Your task to perform on an android device: change notifications settings Image 0: 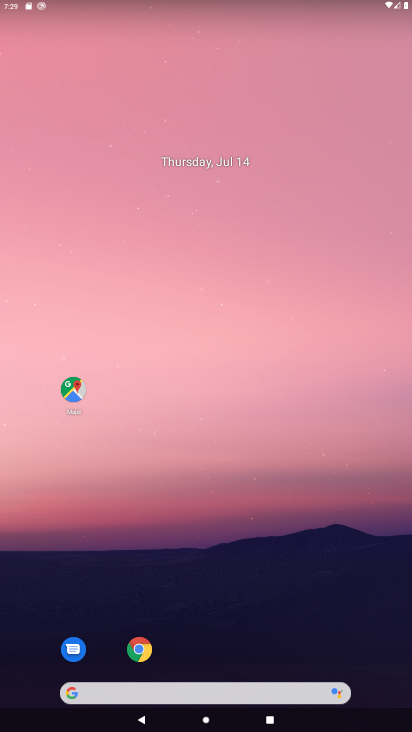
Step 0: drag from (240, 575) to (270, 50)
Your task to perform on an android device: change notifications settings Image 1: 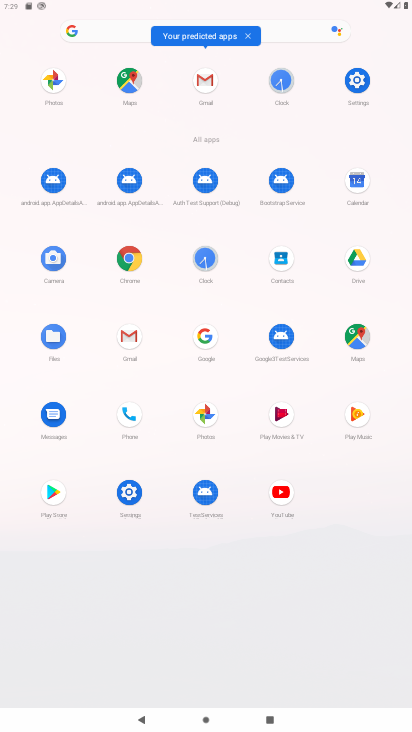
Step 1: click (354, 83)
Your task to perform on an android device: change notifications settings Image 2: 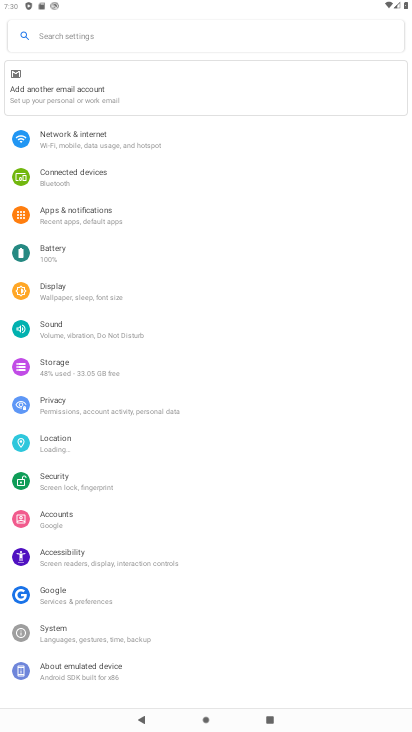
Step 2: click (69, 209)
Your task to perform on an android device: change notifications settings Image 3: 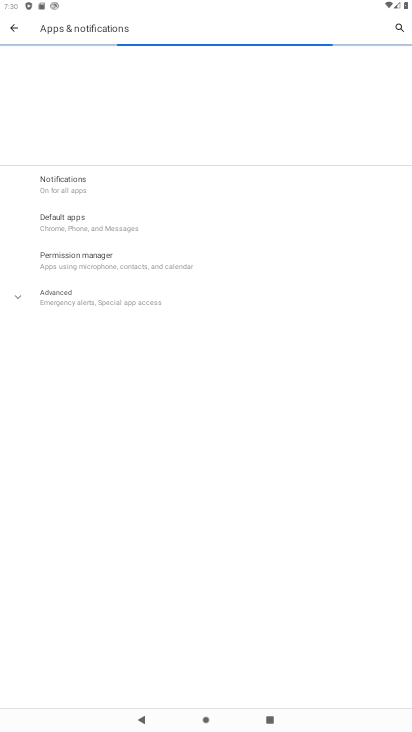
Step 3: click (74, 177)
Your task to perform on an android device: change notifications settings Image 4: 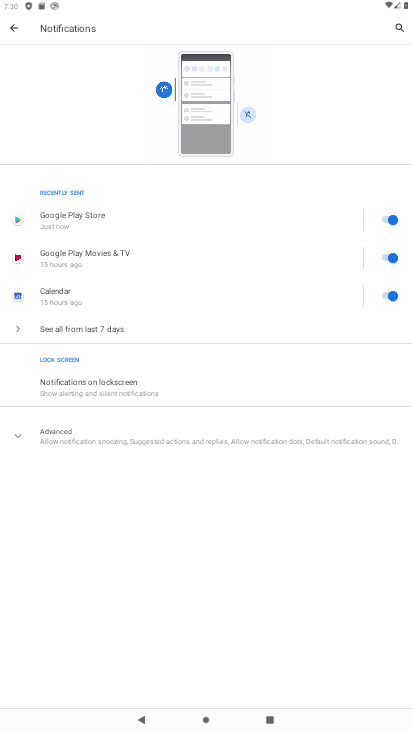
Step 4: click (101, 445)
Your task to perform on an android device: change notifications settings Image 5: 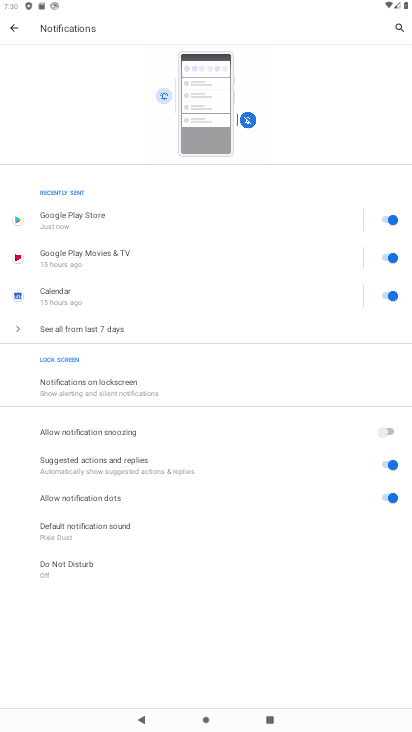
Step 5: click (387, 422)
Your task to perform on an android device: change notifications settings Image 6: 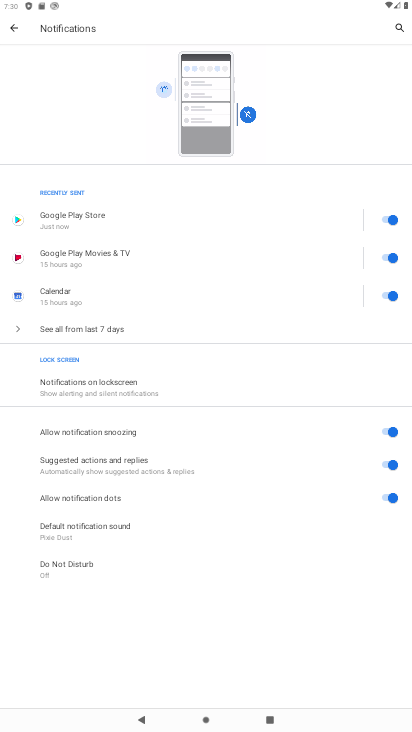
Step 6: task complete